Your task to perform on an android device: Open the Play Movies app and select the watchlist tab. Image 0: 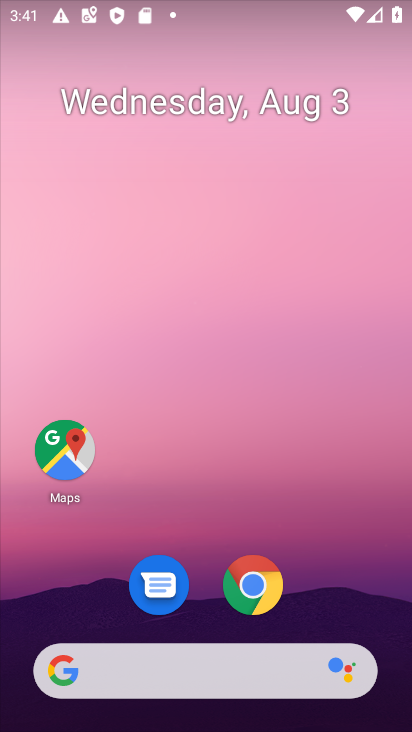
Step 0: drag from (387, 714) to (362, 61)
Your task to perform on an android device: Open the Play Movies app and select the watchlist tab. Image 1: 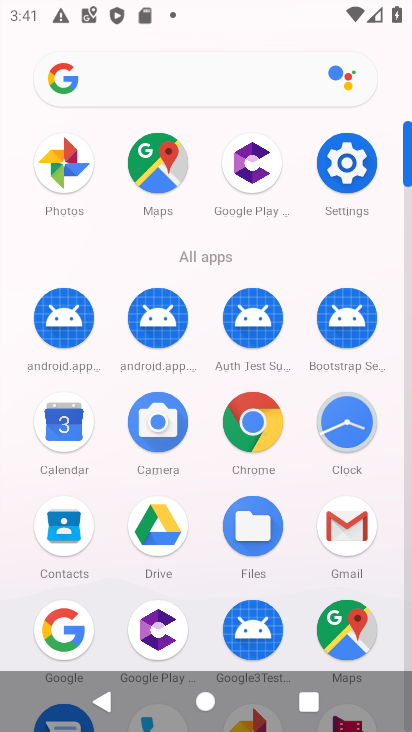
Step 1: drag from (300, 629) to (248, 41)
Your task to perform on an android device: Open the Play Movies app and select the watchlist tab. Image 2: 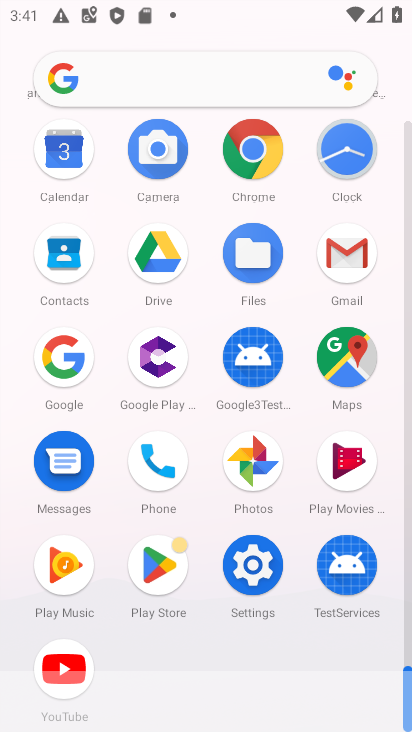
Step 2: click (322, 465)
Your task to perform on an android device: Open the Play Movies app and select the watchlist tab. Image 3: 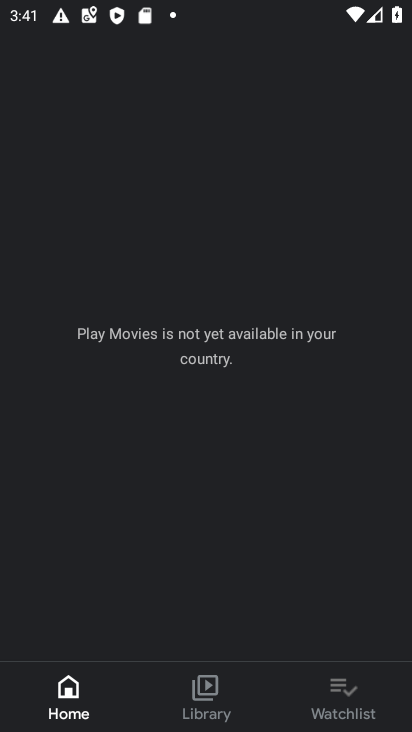
Step 3: click (360, 703)
Your task to perform on an android device: Open the Play Movies app and select the watchlist tab. Image 4: 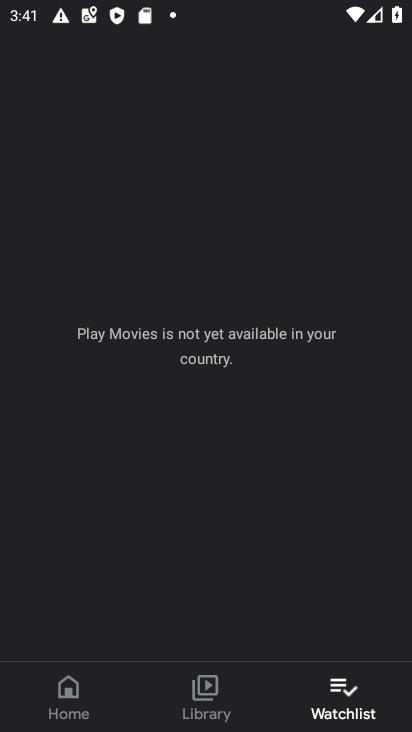
Step 4: task complete